Your task to perform on an android device: turn off sleep mode Image 0: 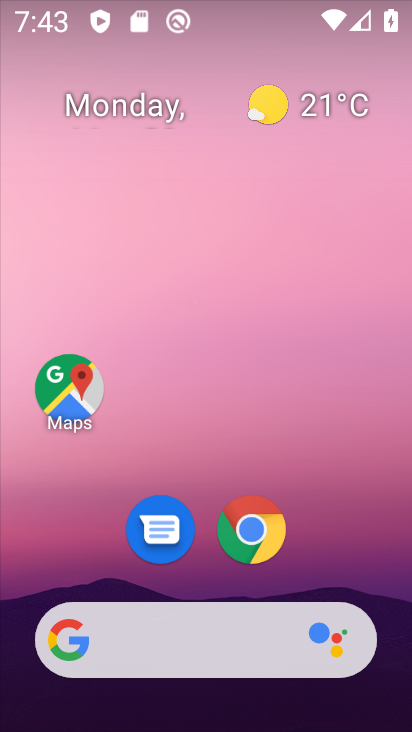
Step 0: drag from (343, 564) to (410, 24)
Your task to perform on an android device: turn off sleep mode Image 1: 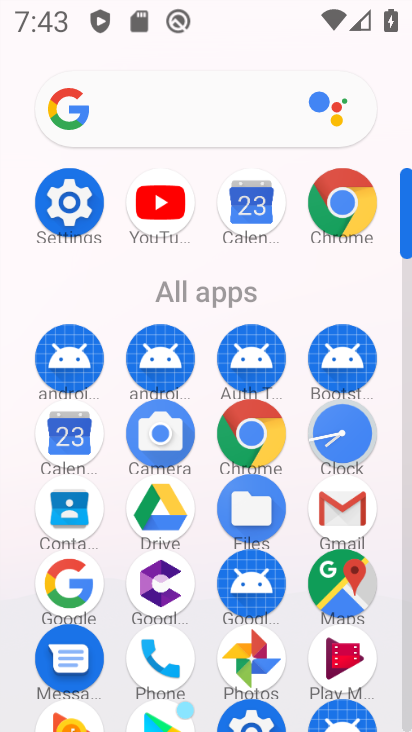
Step 1: click (52, 204)
Your task to perform on an android device: turn off sleep mode Image 2: 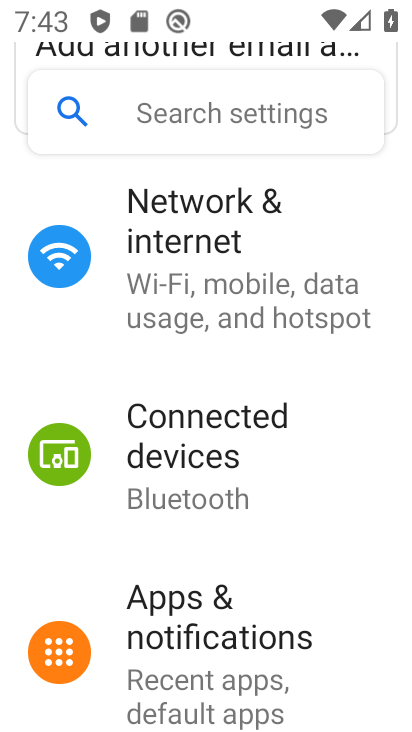
Step 2: drag from (153, 624) to (212, 452)
Your task to perform on an android device: turn off sleep mode Image 3: 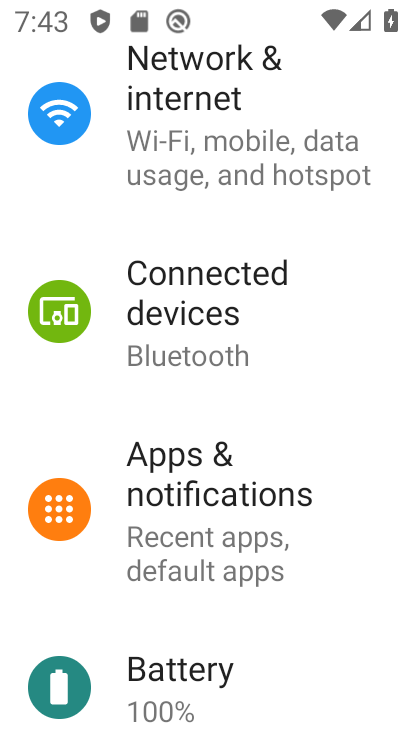
Step 3: drag from (238, 645) to (260, 544)
Your task to perform on an android device: turn off sleep mode Image 4: 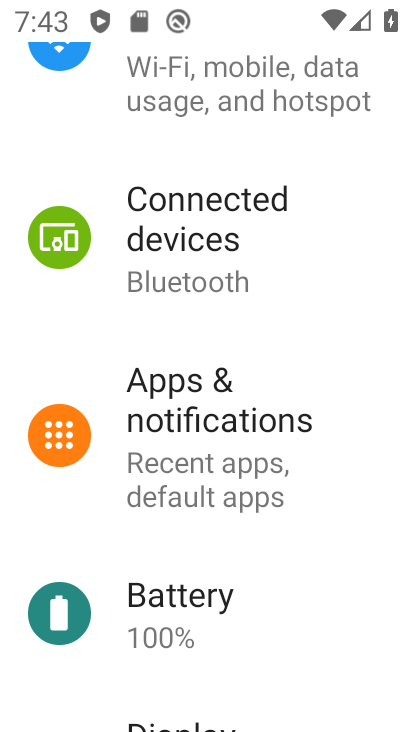
Step 4: drag from (249, 682) to (271, 561)
Your task to perform on an android device: turn off sleep mode Image 5: 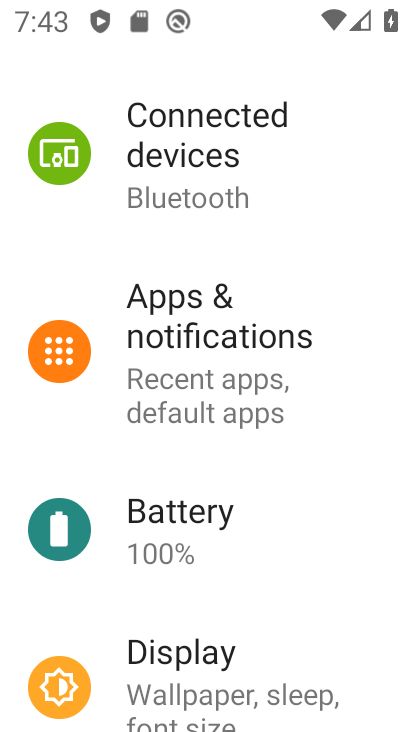
Step 5: drag from (276, 683) to (321, 583)
Your task to perform on an android device: turn off sleep mode Image 6: 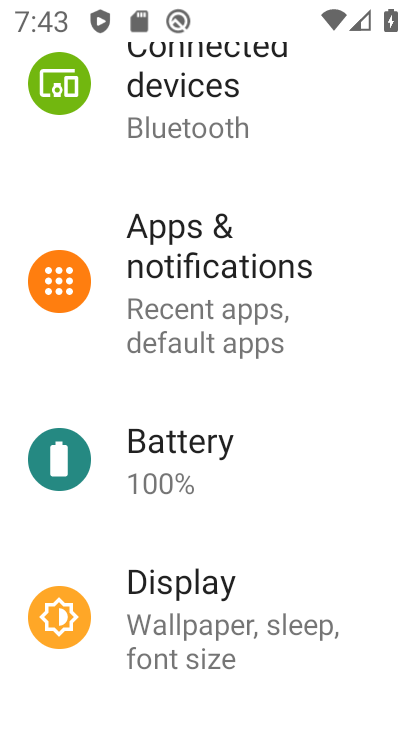
Step 6: drag from (280, 676) to (310, 564)
Your task to perform on an android device: turn off sleep mode Image 7: 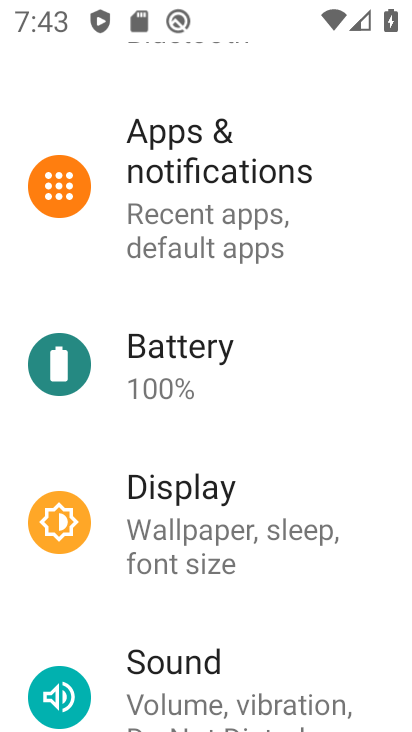
Step 7: drag from (303, 676) to (339, 539)
Your task to perform on an android device: turn off sleep mode Image 8: 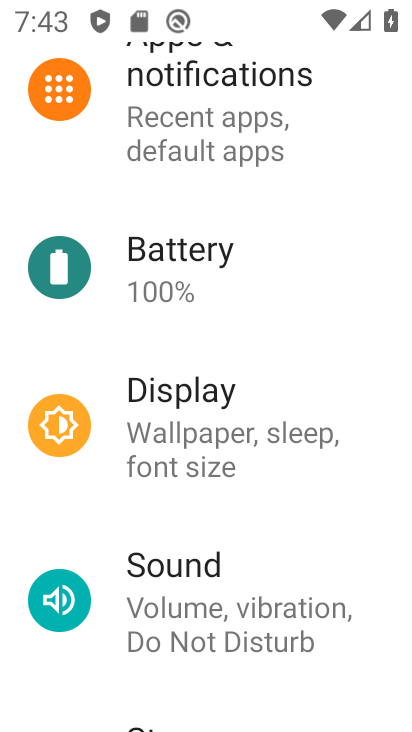
Step 8: click (308, 452)
Your task to perform on an android device: turn off sleep mode Image 9: 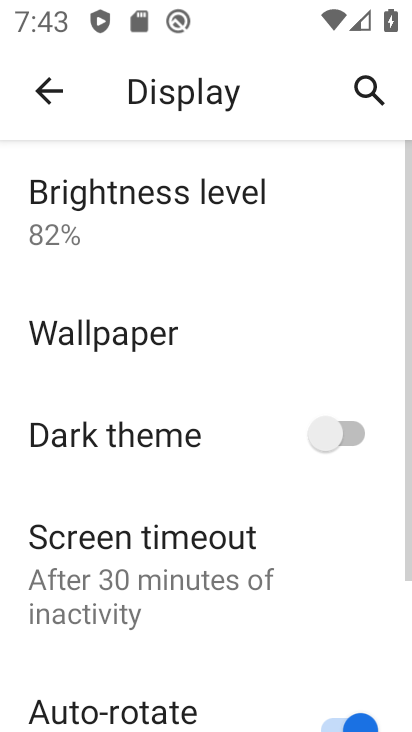
Step 9: drag from (267, 605) to (312, 315)
Your task to perform on an android device: turn off sleep mode Image 10: 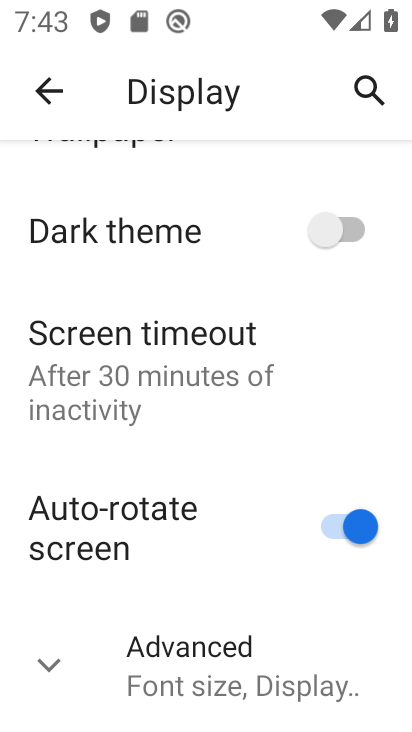
Step 10: drag from (236, 581) to (305, 337)
Your task to perform on an android device: turn off sleep mode Image 11: 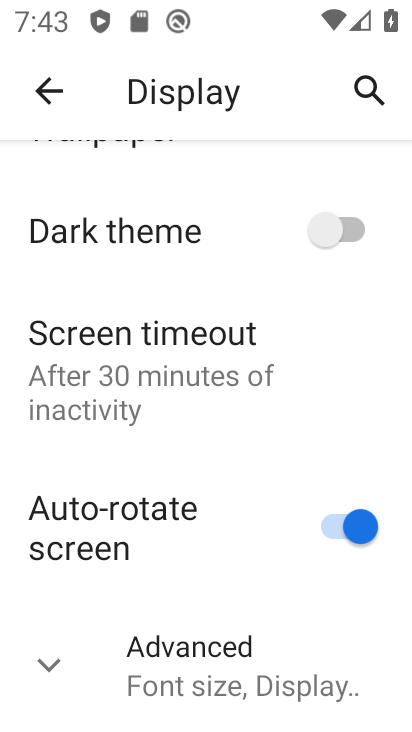
Step 11: click (206, 665)
Your task to perform on an android device: turn off sleep mode Image 12: 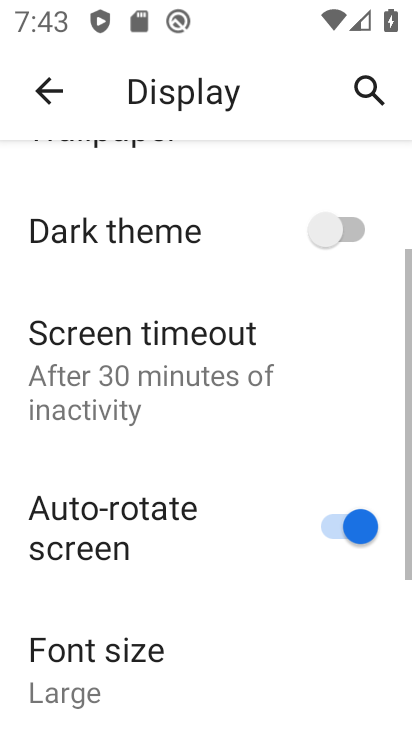
Step 12: drag from (206, 663) to (271, 391)
Your task to perform on an android device: turn off sleep mode Image 13: 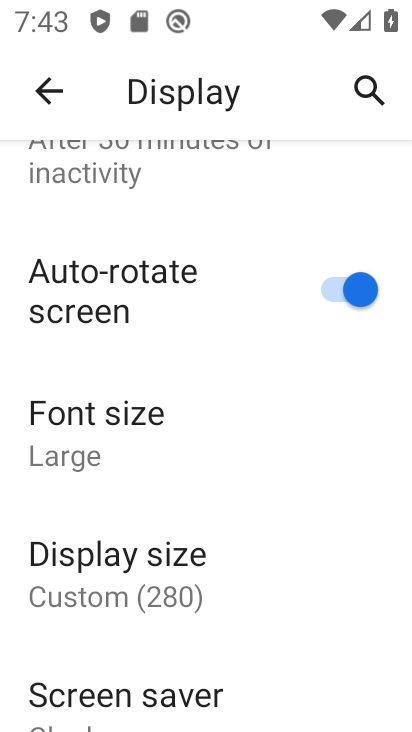
Step 13: drag from (214, 662) to (244, 435)
Your task to perform on an android device: turn off sleep mode Image 14: 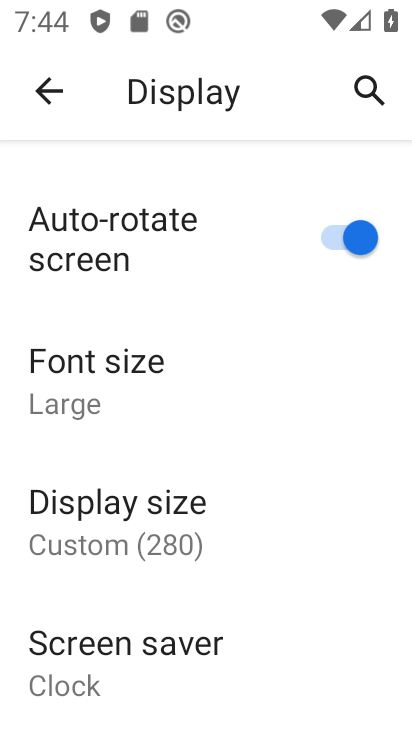
Step 14: drag from (190, 588) to (232, 365)
Your task to perform on an android device: turn off sleep mode Image 15: 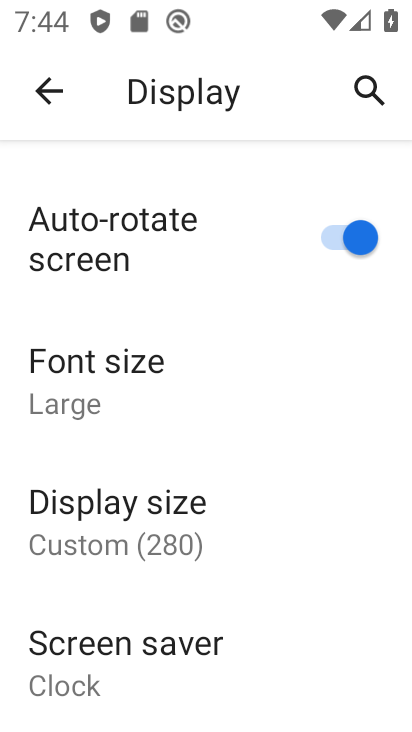
Step 15: click (50, 90)
Your task to perform on an android device: turn off sleep mode Image 16: 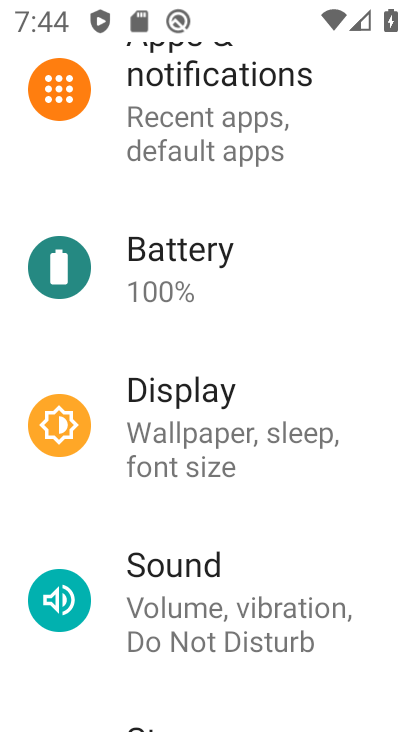
Step 16: task complete